Your task to perform on an android device: remove spam from my inbox in the gmail app Image 0: 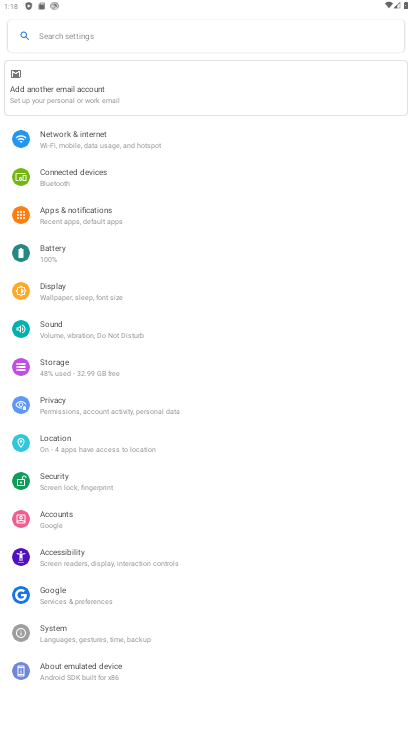
Step 0: press home button
Your task to perform on an android device: remove spam from my inbox in the gmail app Image 1: 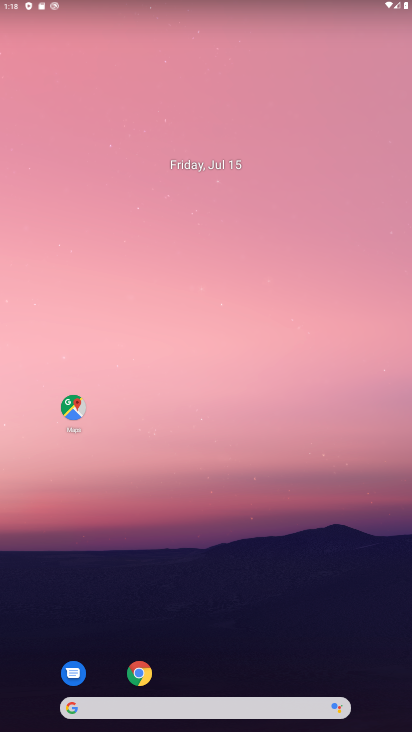
Step 1: drag from (294, 593) to (267, 6)
Your task to perform on an android device: remove spam from my inbox in the gmail app Image 2: 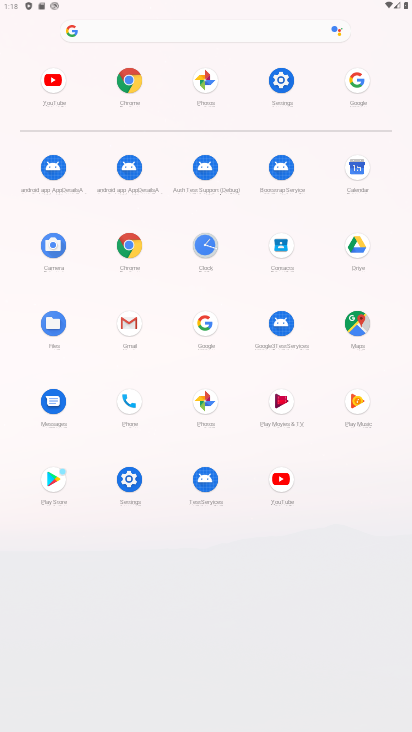
Step 2: click (115, 301)
Your task to perform on an android device: remove spam from my inbox in the gmail app Image 3: 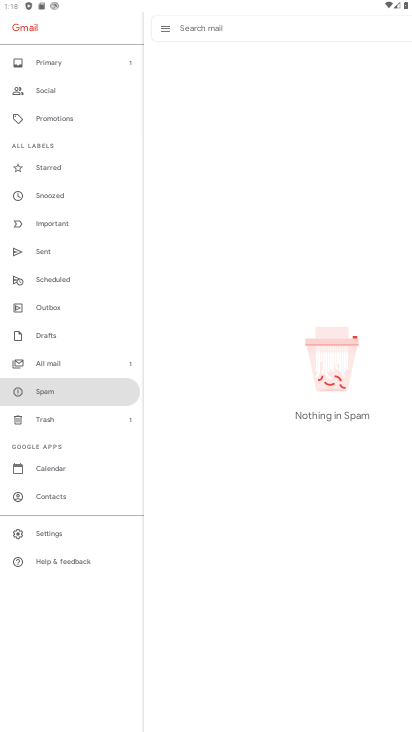
Step 3: click (60, 399)
Your task to perform on an android device: remove spam from my inbox in the gmail app Image 4: 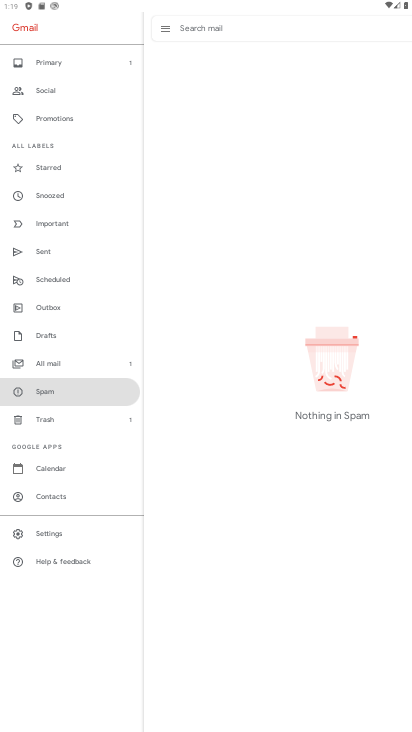
Step 4: task complete